Your task to perform on an android device: What's on my calendar today? Image 0: 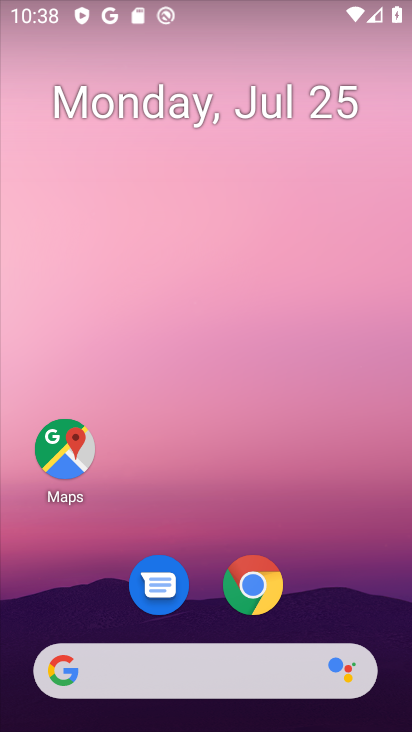
Step 0: drag from (350, 517) to (331, 51)
Your task to perform on an android device: What's on my calendar today? Image 1: 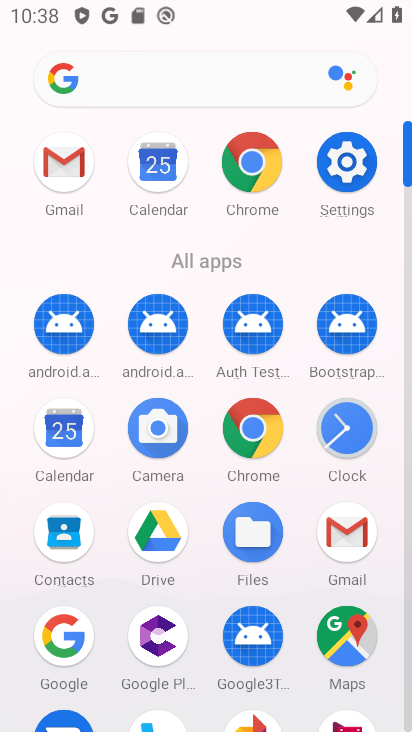
Step 1: click (160, 164)
Your task to perform on an android device: What's on my calendar today? Image 2: 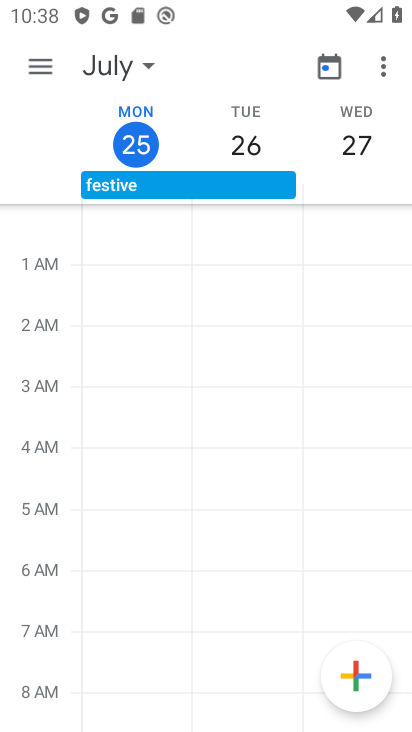
Step 2: task complete